Your task to perform on an android device: toggle priority inbox in the gmail app Image 0: 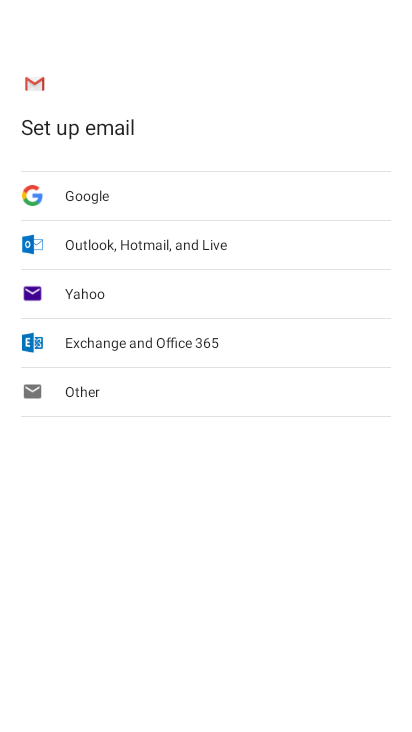
Step 0: press home button
Your task to perform on an android device: toggle priority inbox in the gmail app Image 1: 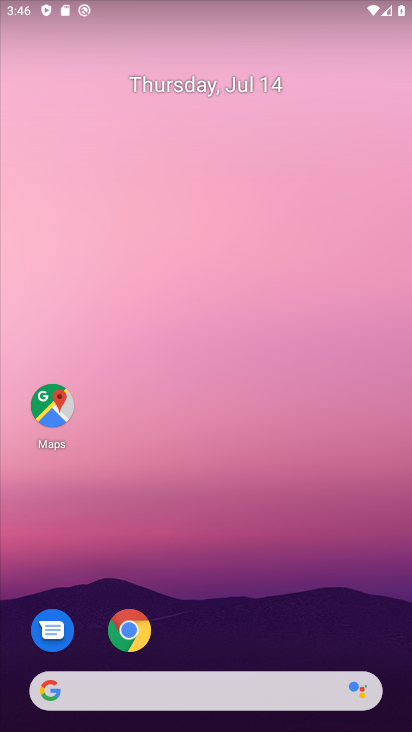
Step 1: drag from (338, 683) to (357, 4)
Your task to perform on an android device: toggle priority inbox in the gmail app Image 2: 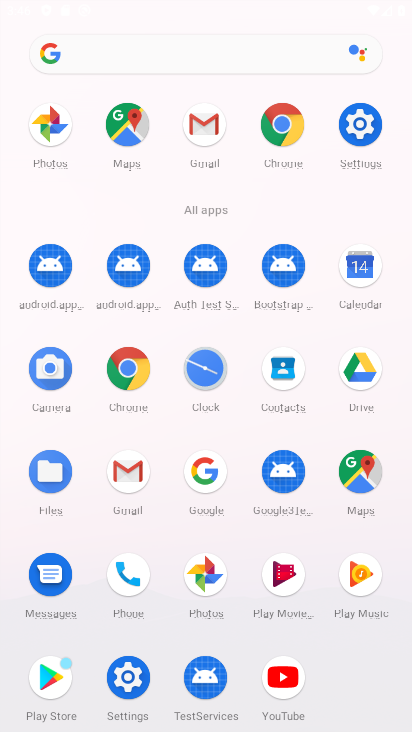
Step 2: click (144, 465)
Your task to perform on an android device: toggle priority inbox in the gmail app Image 3: 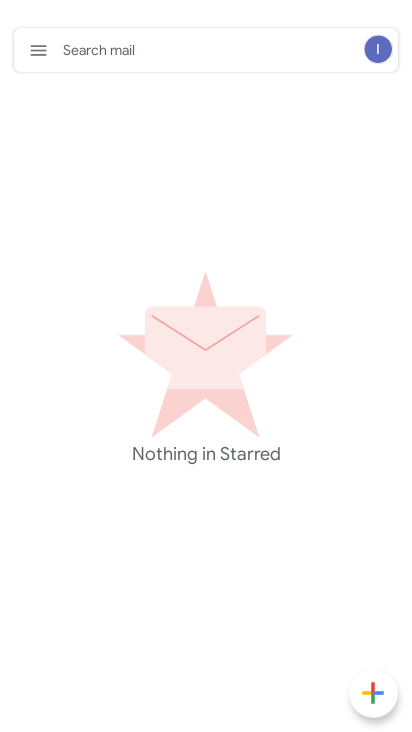
Step 3: click (49, 47)
Your task to perform on an android device: toggle priority inbox in the gmail app Image 4: 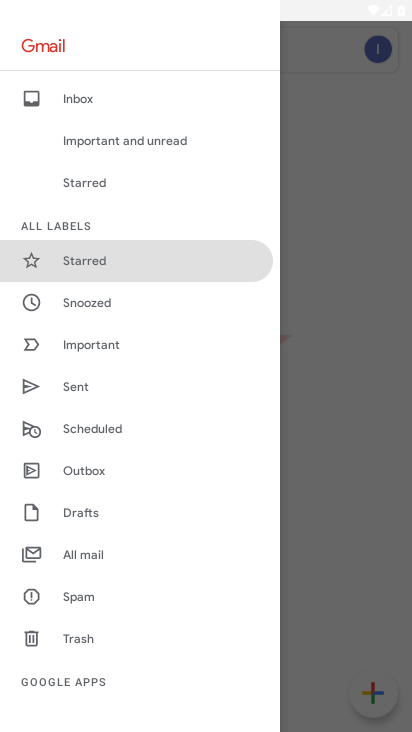
Step 4: drag from (87, 679) to (129, 107)
Your task to perform on an android device: toggle priority inbox in the gmail app Image 5: 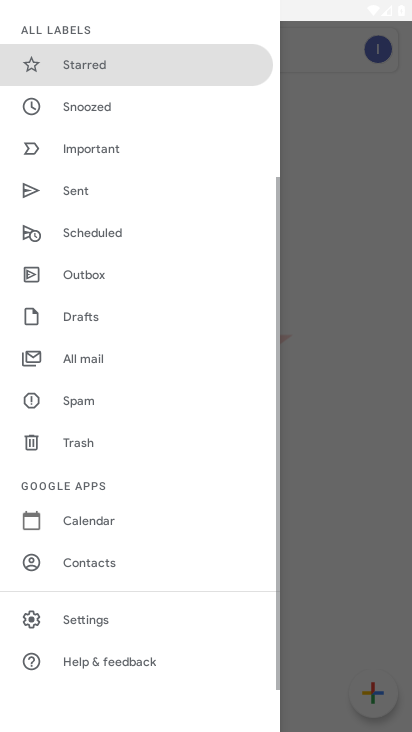
Step 5: click (101, 616)
Your task to perform on an android device: toggle priority inbox in the gmail app Image 6: 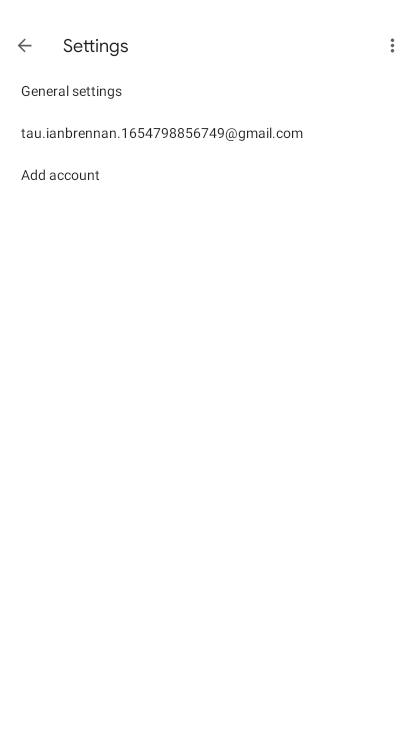
Step 6: click (133, 130)
Your task to perform on an android device: toggle priority inbox in the gmail app Image 7: 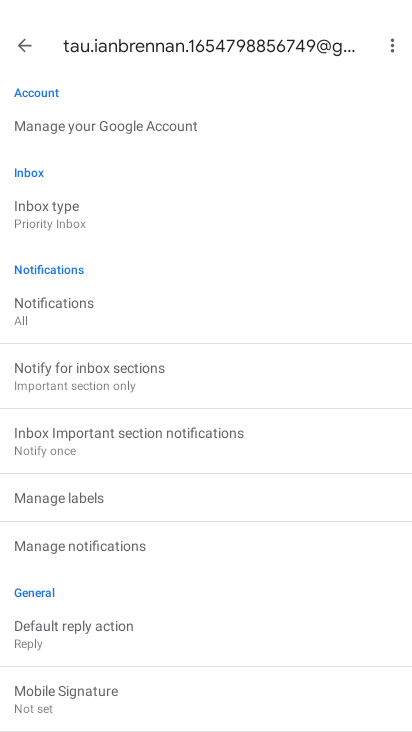
Step 7: click (54, 215)
Your task to perform on an android device: toggle priority inbox in the gmail app Image 8: 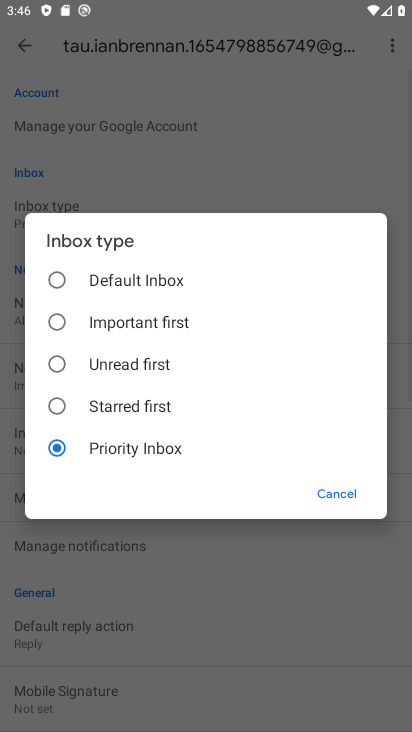
Step 8: click (48, 282)
Your task to perform on an android device: toggle priority inbox in the gmail app Image 9: 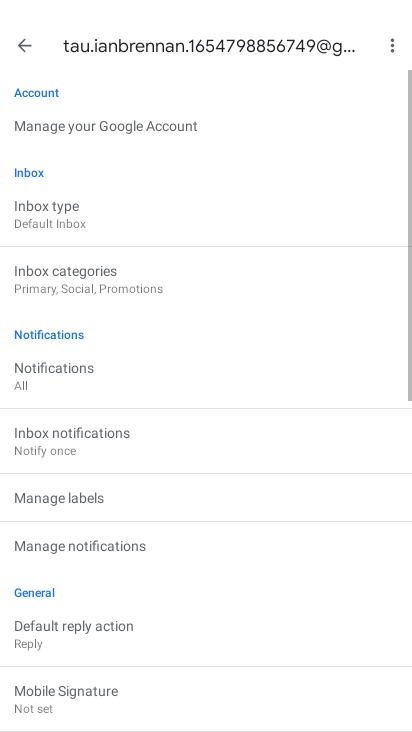
Step 9: task complete